Your task to perform on an android device: open sync settings in chrome Image 0: 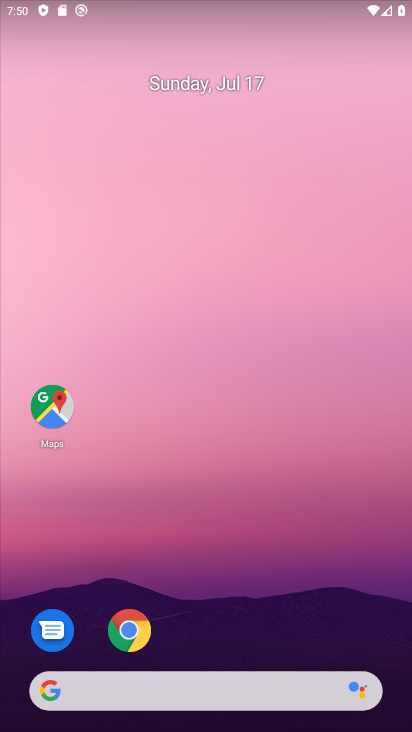
Step 0: click (131, 643)
Your task to perform on an android device: open sync settings in chrome Image 1: 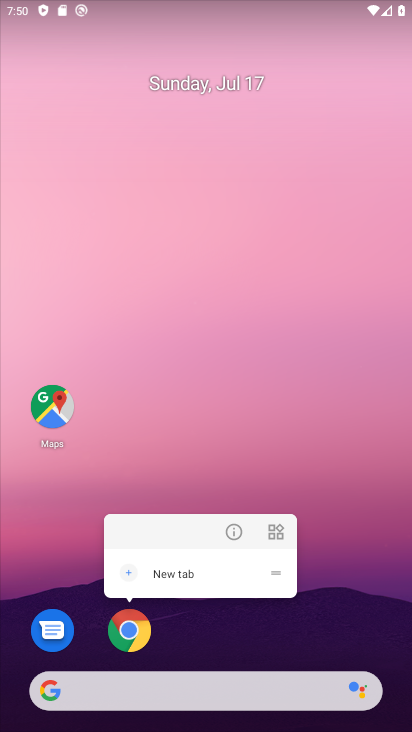
Step 1: click (130, 635)
Your task to perform on an android device: open sync settings in chrome Image 2: 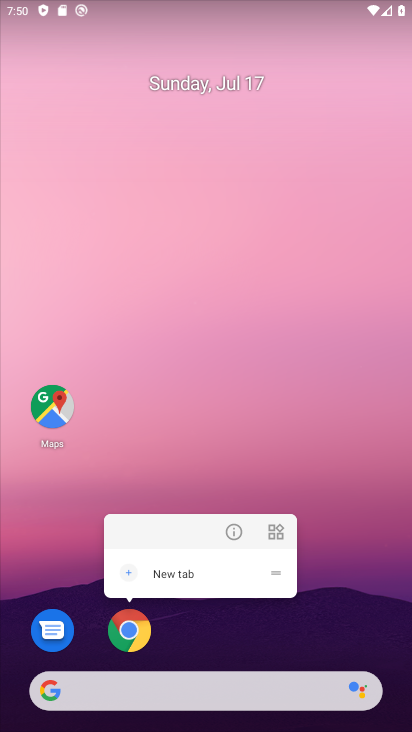
Step 2: click (131, 626)
Your task to perform on an android device: open sync settings in chrome Image 3: 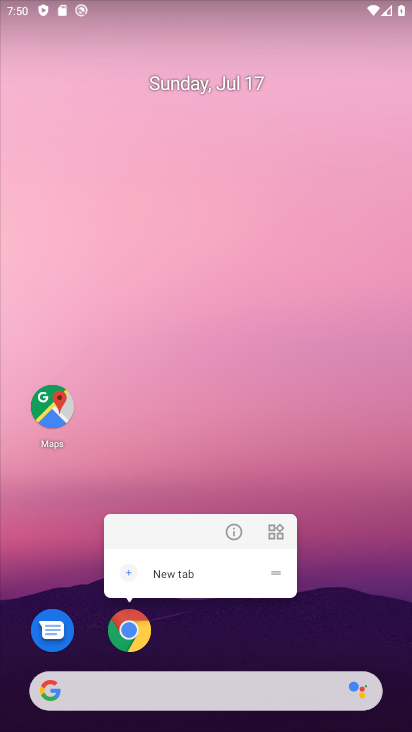
Step 3: click (117, 624)
Your task to perform on an android device: open sync settings in chrome Image 4: 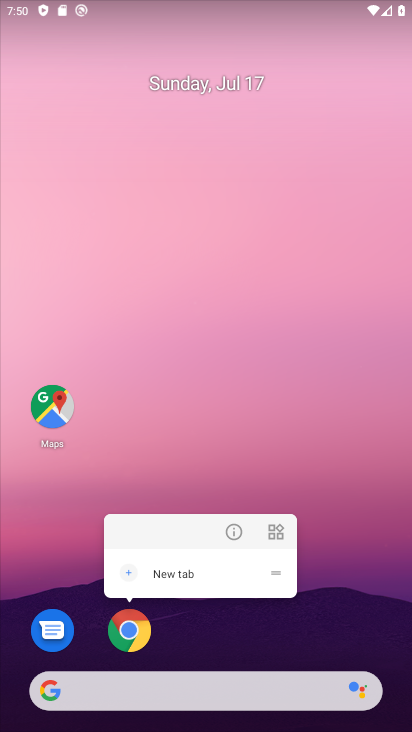
Step 4: click (120, 635)
Your task to perform on an android device: open sync settings in chrome Image 5: 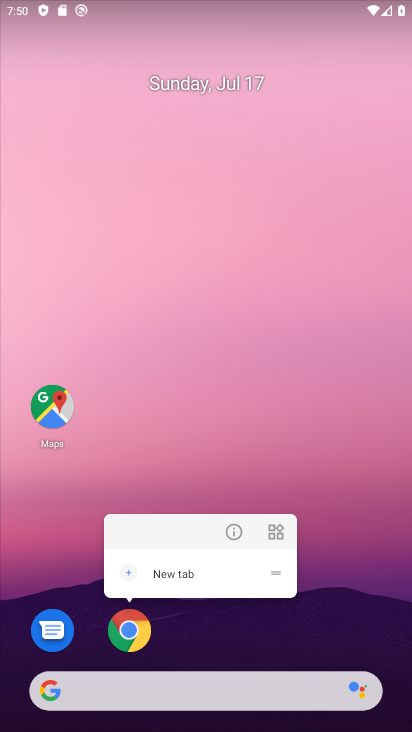
Step 5: task complete